Your task to perform on an android device: Go to battery settings Image 0: 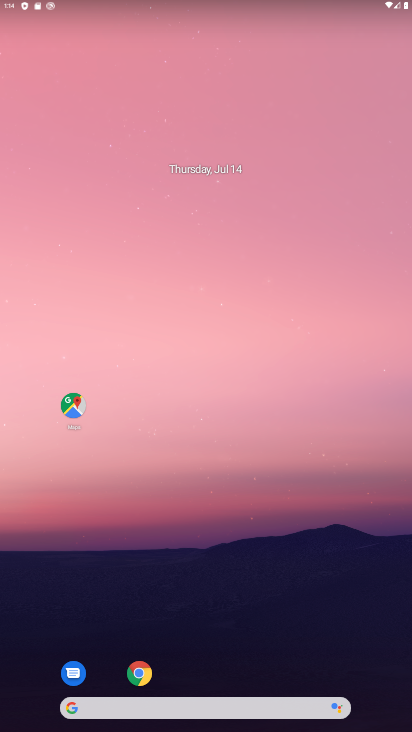
Step 0: drag from (280, 674) to (280, 329)
Your task to perform on an android device: Go to battery settings Image 1: 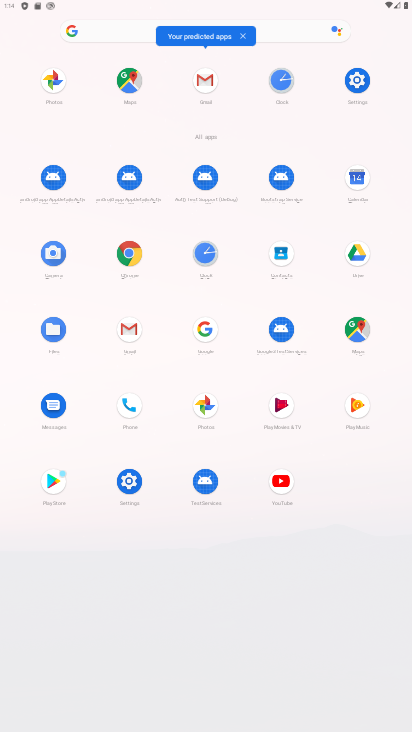
Step 1: click (354, 84)
Your task to perform on an android device: Go to battery settings Image 2: 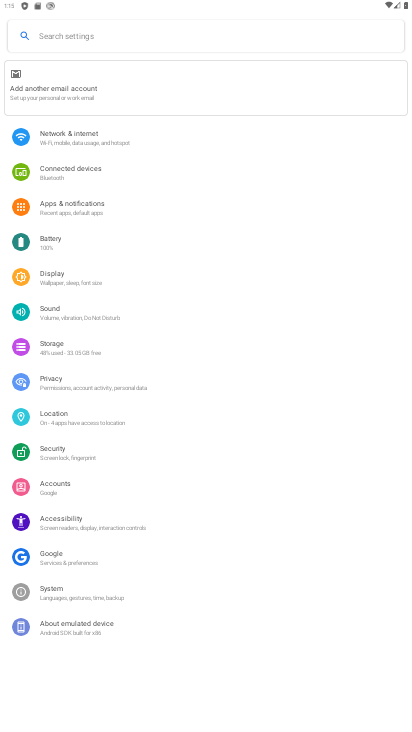
Step 2: click (64, 238)
Your task to perform on an android device: Go to battery settings Image 3: 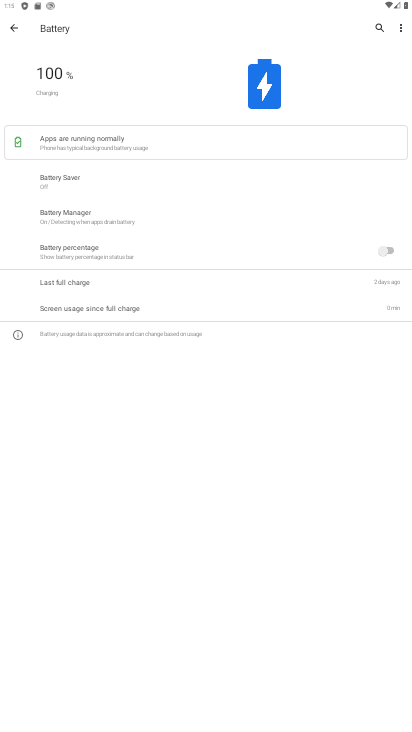
Step 3: task complete